Your task to perform on an android device: open wifi settings Image 0: 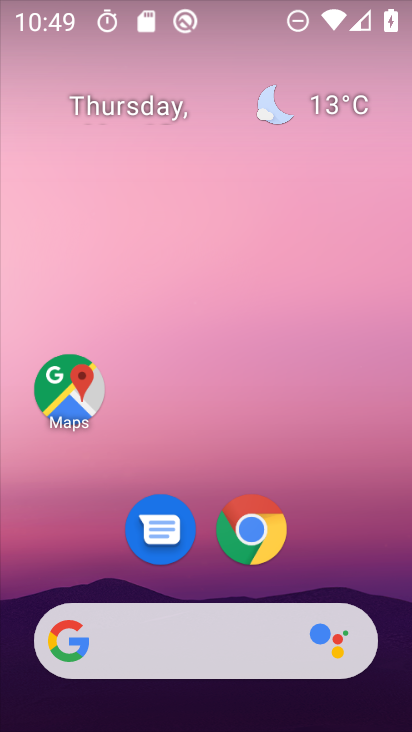
Step 0: drag from (307, 553) to (171, 75)
Your task to perform on an android device: open wifi settings Image 1: 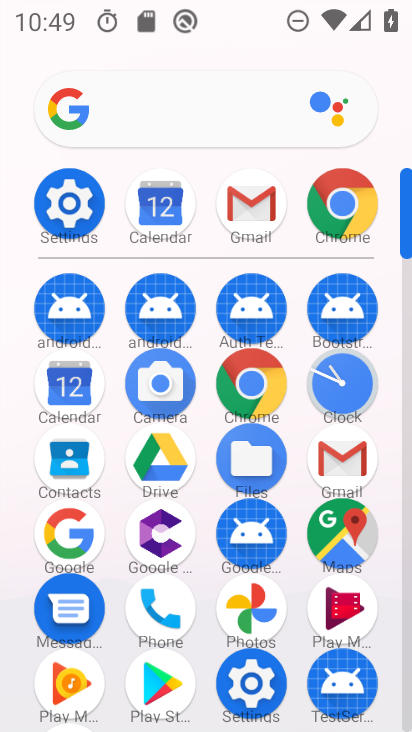
Step 1: click (52, 189)
Your task to perform on an android device: open wifi settings Image 2: 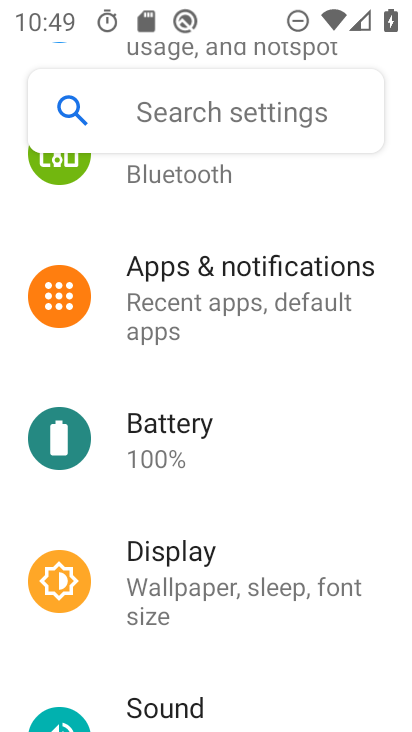
Step 2: drag from (202, 193) to (266, 582)
Your task to perform on an android device: open wifi settings Image 3: 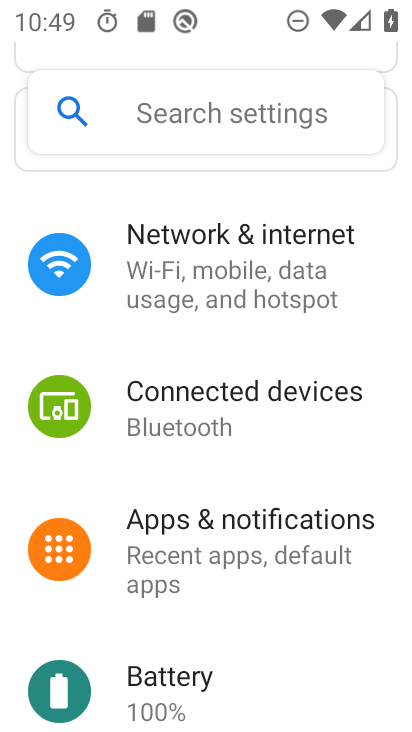
Step 3: click (229, 288)
Your task to perform on an android device: open wifi settings Image 4: 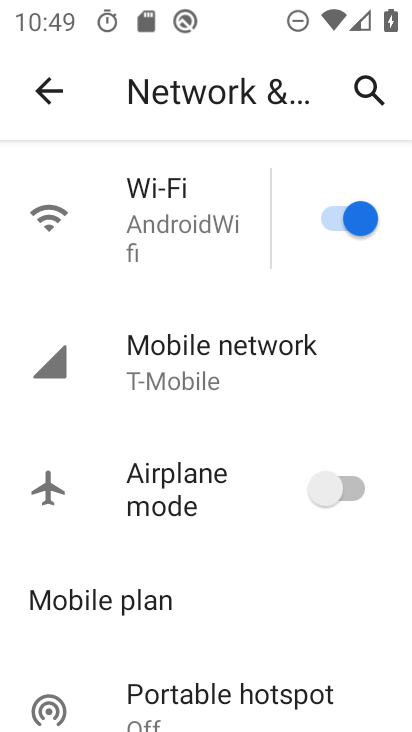
Step 4: click (134, 232)
Your task to perform on an android device: open wifi settings Image 5: 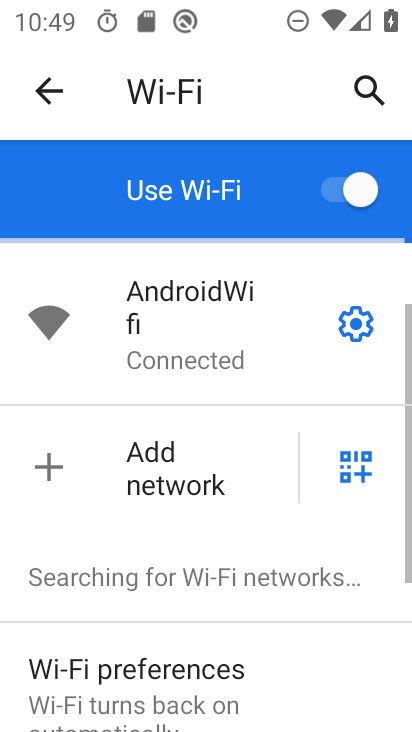
Step 5: task complete